Your task to perform on an android device: toggle airplane mode Image 0: 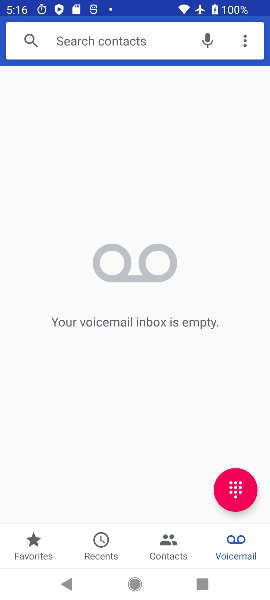
Step 0: press back button
Your task to perform on an android device: toggle airplane mode Image 1: 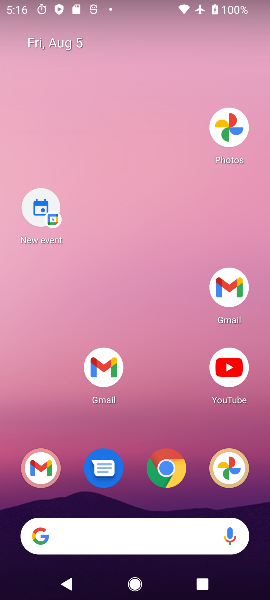
Step 1: drag from (180, 549) to (162, 52)
Your task to perform on an android device: toggle airplane mode Image 2: 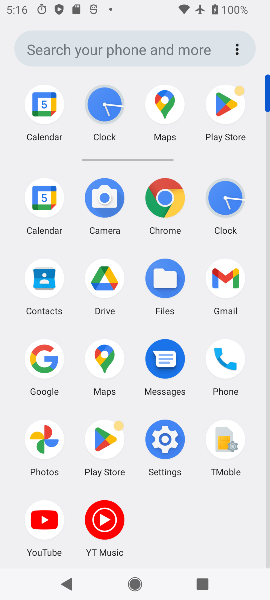
Step 2: drag from (203, 366) to (191, 70)
Your task to perform on an android device: toggle airplane mode Image 3: 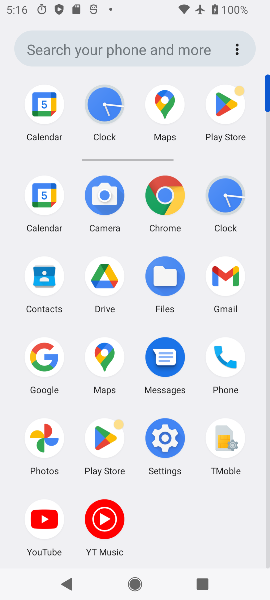
Step 3: drag from (161, 376) to (163, 152)
Your task to perform on an android device: toggle airplane mode Image 4: 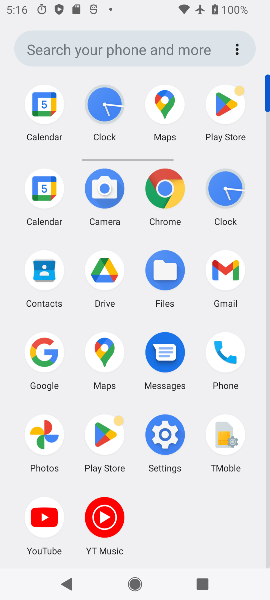
Step 4: drag from (181, 295) to (188, 179)
Your task to perform on an android device: toggle airplane mode Image 5: 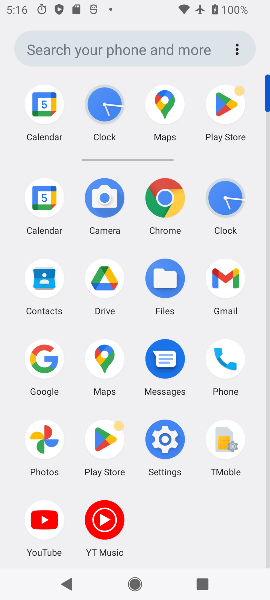
Step 5: click (163, 441)
Your task to perform on an android device: toggle airplane mode Image 6: 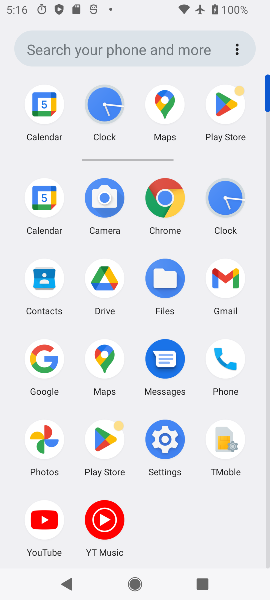
Step 6: click (163, 441)
Your task to perform on an android device: toggle airplane mode Image 7: 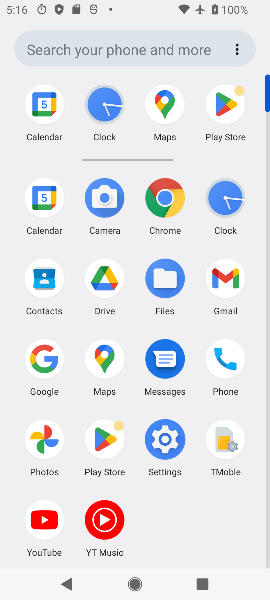
Step 7: click (163, 441)
Your task to perform on an android device: toggle airplane mode Image 8: 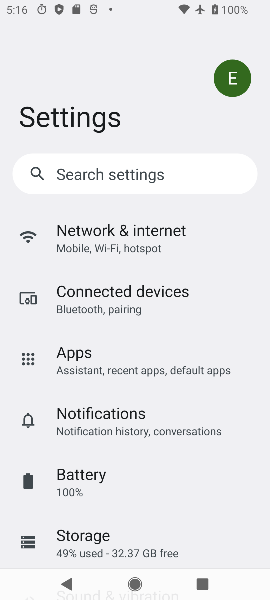
Step 8: click (162, 442)
Your task to perform on an android device: toggle airplane mode Image 9: 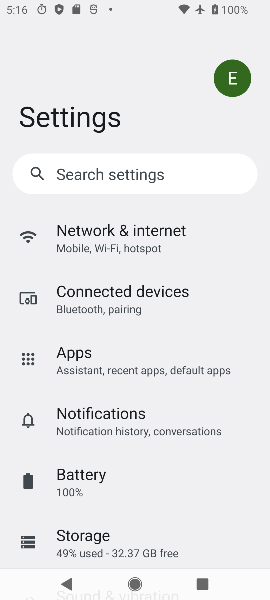
Step 9: click (162, 442)
Your task to perform on an android device: toggle airplane mode Image 10: 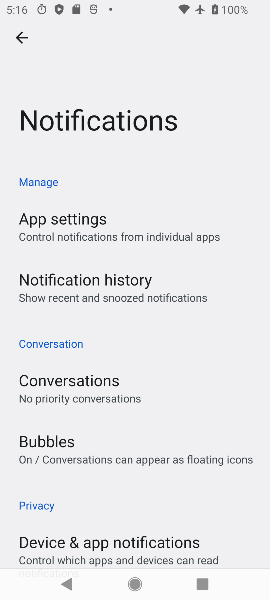
Step 10: click (27, 35)
Your task to perform on an android device: toggle airplane mode Image 11: 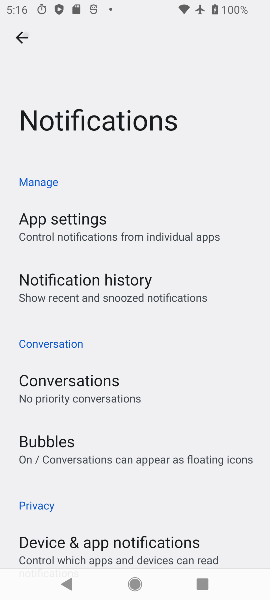
Step 11: click (27, 35)
Your task to perform on an android device: toggle airplane mode Image 12: 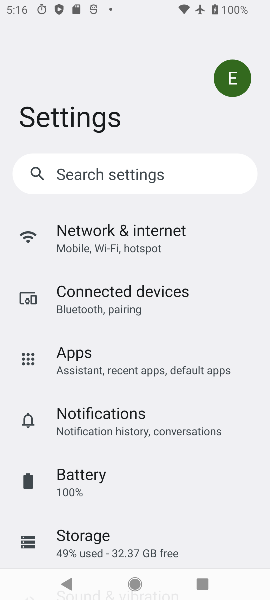
Step 12: click (114, 243)
Your task to perform on an android device: toggle airplane mode Image 13: 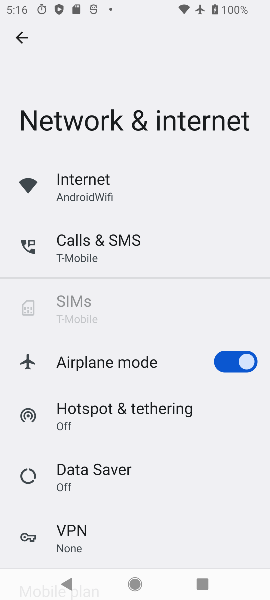
Step 13: click (88, 186)
Your task to perform on an android device: toggle airplane mode Image 14: 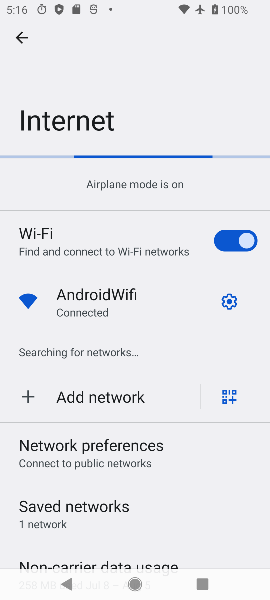
Step 14: click (26, 38)
Your task to perform on an android device: toggle airplane mode Image 15: 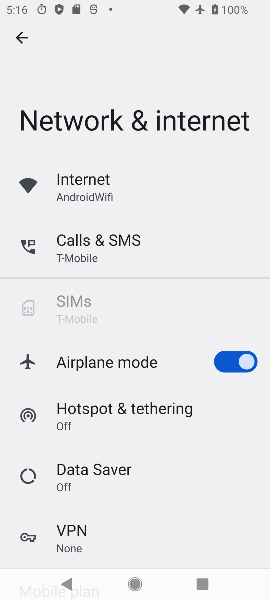
Step 15: click (241, 356)
Your task to perform on an android device: toggle airplane mode Image 16: 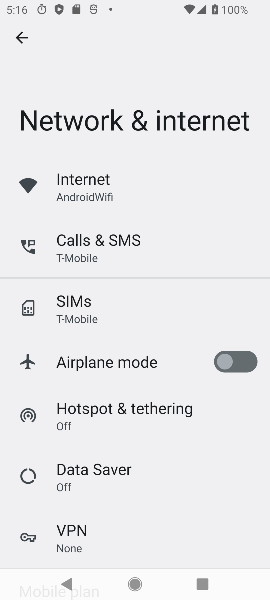
Step 16: task complete